Your task to perform on an android device: turn off smart reply in the gmail app Image 0: 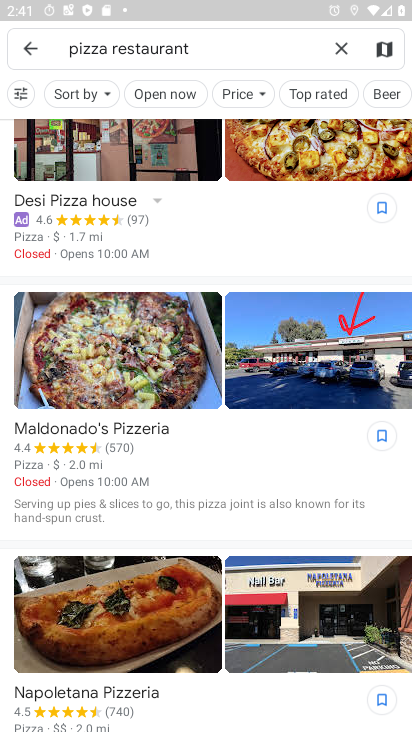
Step 0: press home button
Your task to perform on an android device: turn off smart reply in the gmail app Image 1: 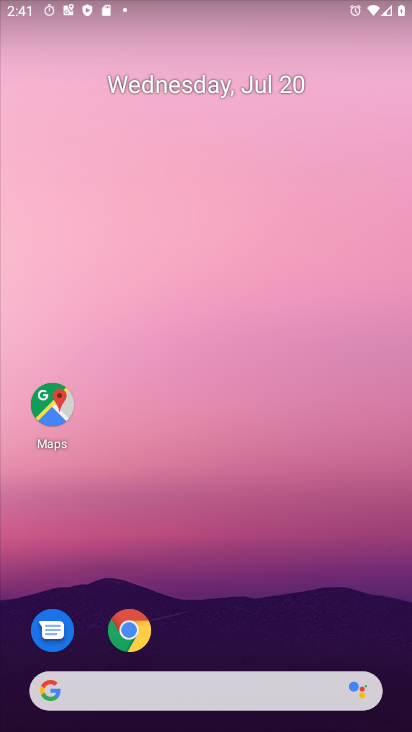
Step 1: drag from (179, 687) to (301, 53)
Your task to perform on an android device: turn off smart reply in the gmail app Image 2: 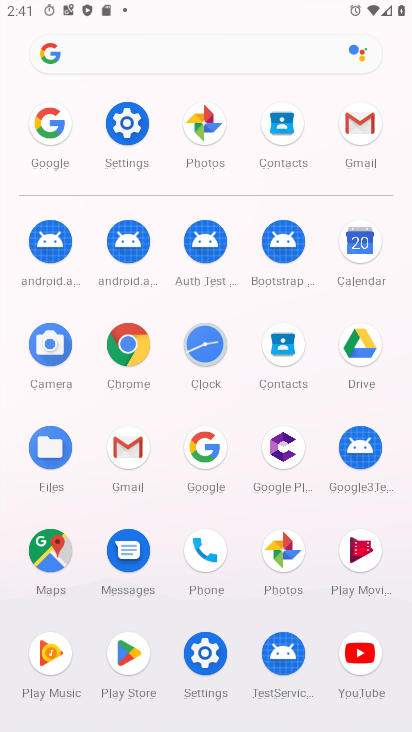
Step 2: click (358, 129)
Your task to perform on an android device: turn off smart reply in the gmail app Image 3: 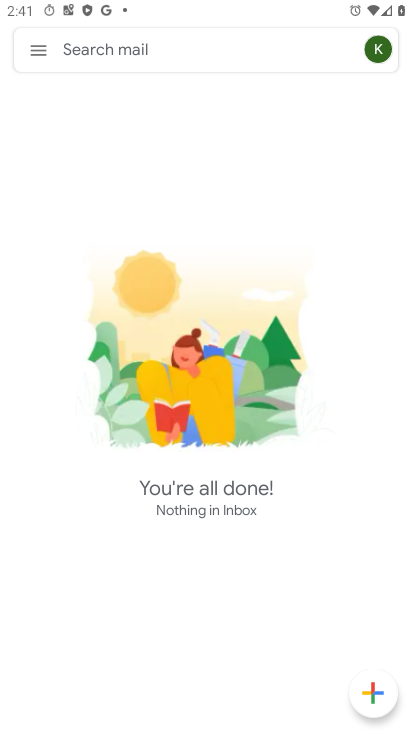
Step 3: click (39, 46)
Your task to perform on an android device: turn off smart reply in the gmail app Image 4: 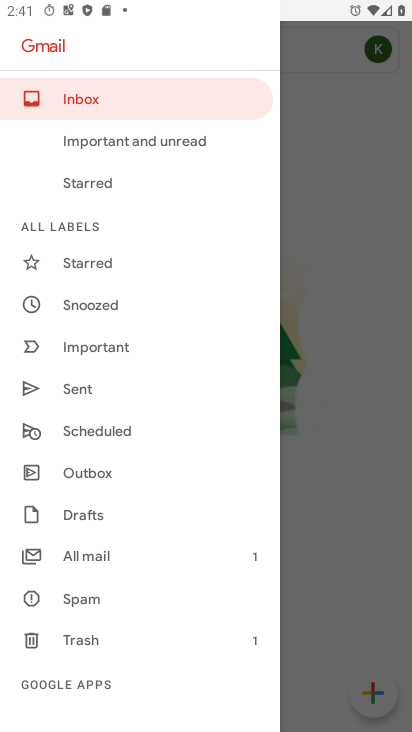
Step 4: drag from (153, 636) to (190, 194)
Your task to perform on an android device: turn off smart reply in the gmail app Image 5: 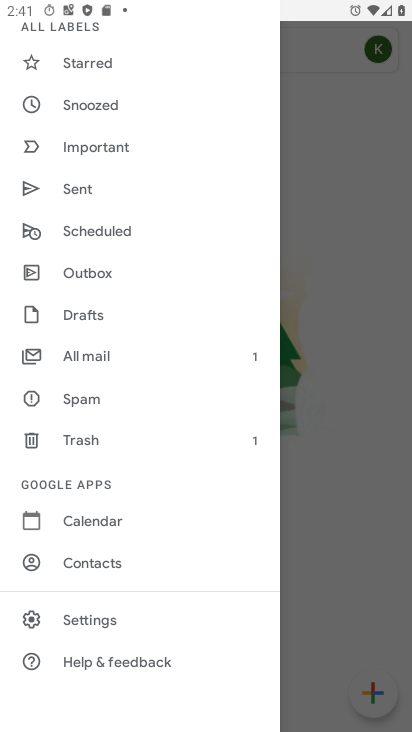
Step 5: click (100, 622)
Your task to perform on an android device: turn off smart reply in the gmail app Image 6: 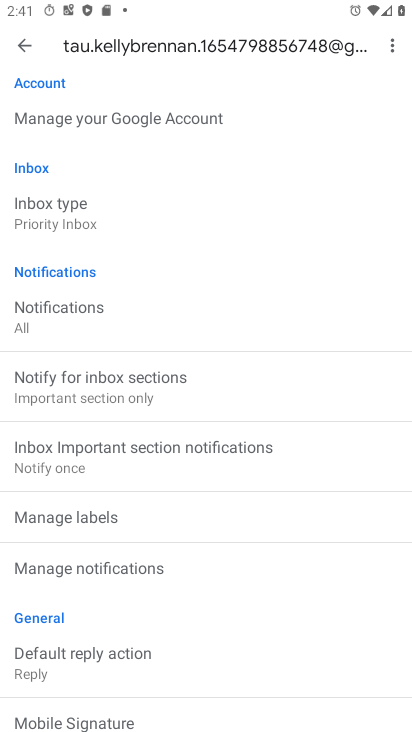
Step 6: drag from (180, 598) to (297, 145)
Your task to perform on an android device: turn off smart reply in the gmail app Image 7: 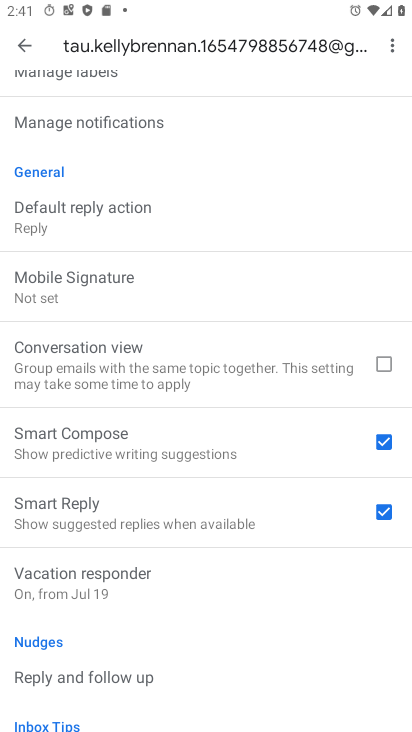
Step 7: click (382, 514)
Your task to perform on an android device: turn off smart reply in the gmail app Image 8: 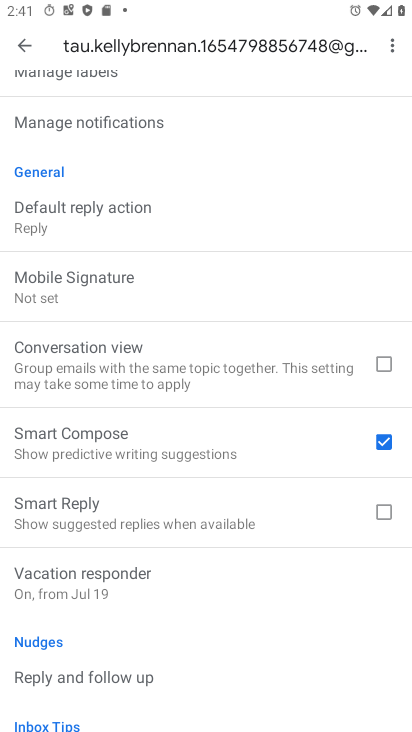
Step 8: task complete